Your task to perform on an android device: move an email to a new category in the gmail app Image 0: 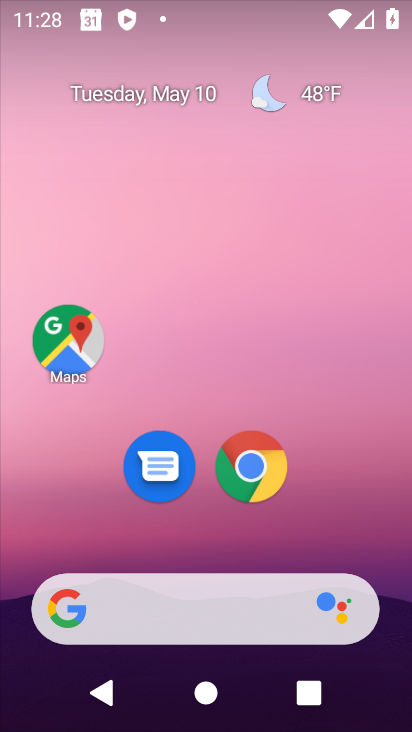
Step 0: drag from (201, 485) to (274, 51)
Your task to perform on an android device: move an email to a new category in the gmail app Image 1: 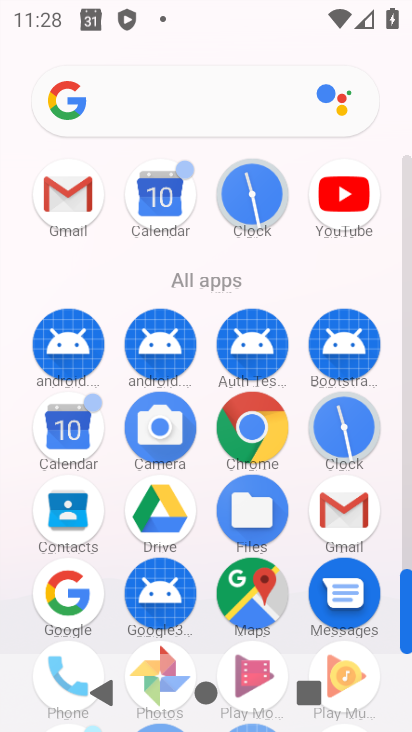
Step 1: click (351, 507)
Your task to perform on an android device: move an email to a new category in the gmail app Image 2: 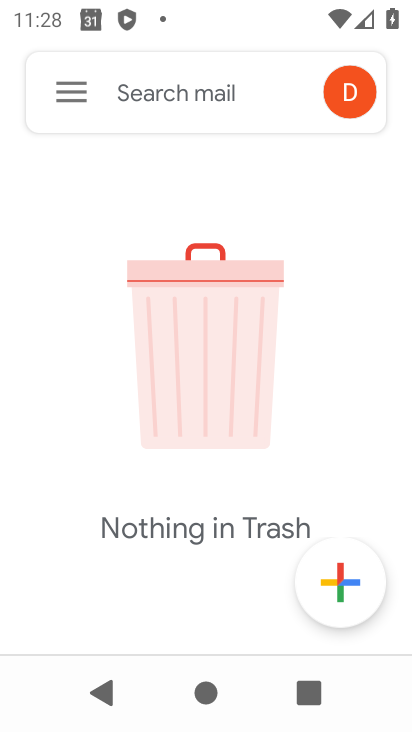
Step 2: click (61, 80)
Your task to perform on an android device: move an email to a new category in the gmail app Image 3: 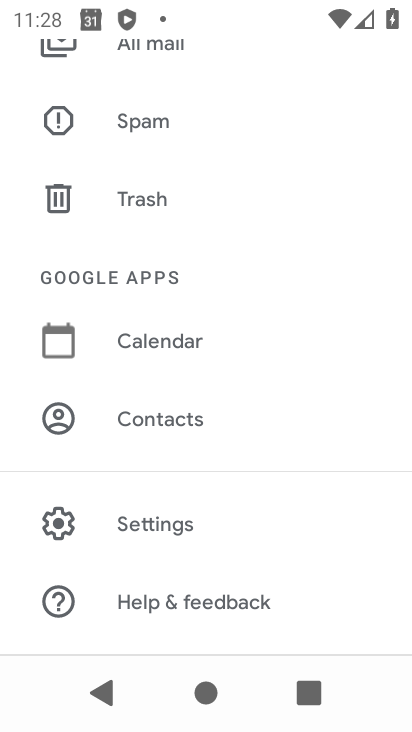
Step 3: click (169, 45)
Your task to perform on an android device: move an email to a new category in the gmail app Image 4: 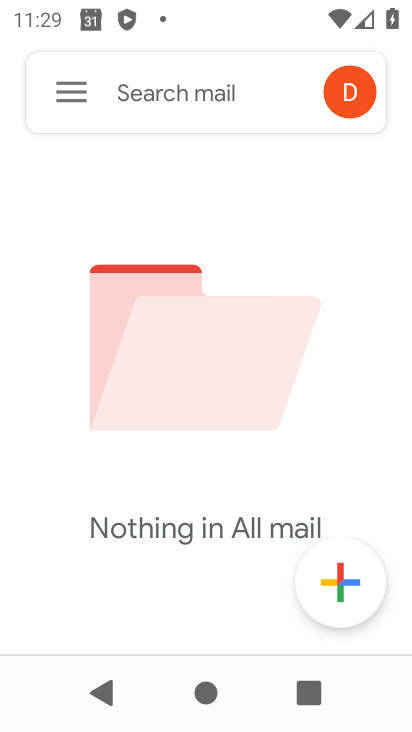
Step 4: task complete